Your task to perform on an android device: Search for vegetarian restaurants on Maps Image 0: 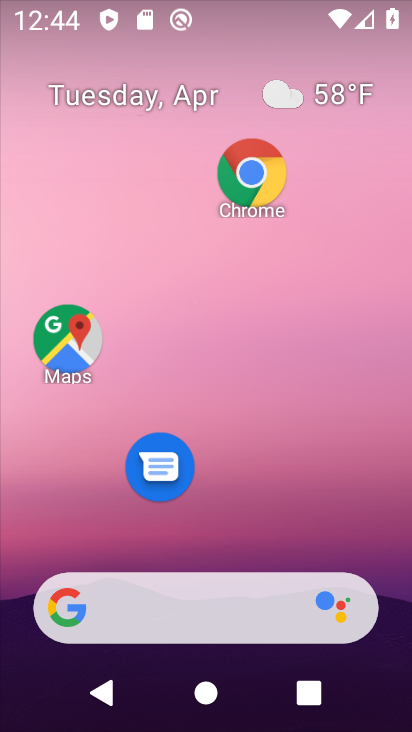
Step 0: click (358, 82)
Your task to perform on an android device: Search for vegetarian restaurants on Maps Image 1: 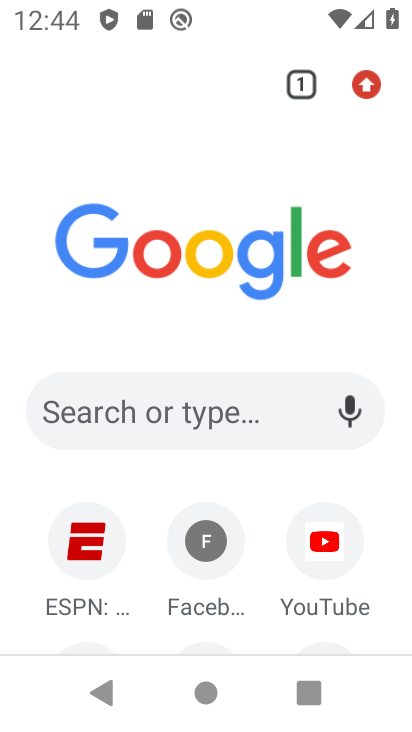
Step 1: press home button
Your task to perform on an android device: Search for vegetarian restaurants on Maps Image 2: 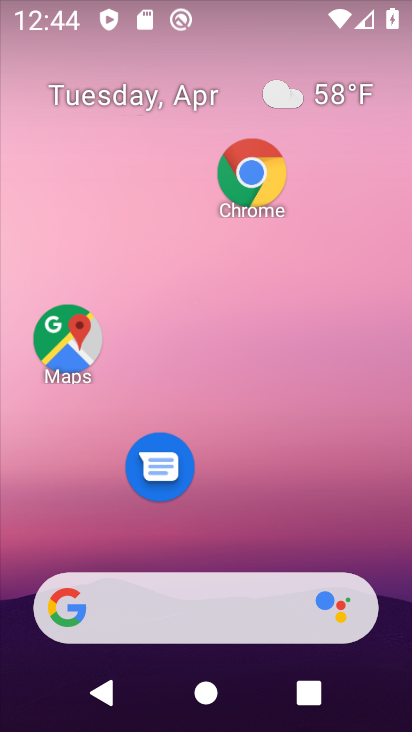
Step 2: drag from (303, 549) to (306, 139)
Your task to perform on an android device: Search for vegetarian restaurants on Maps Image 3: 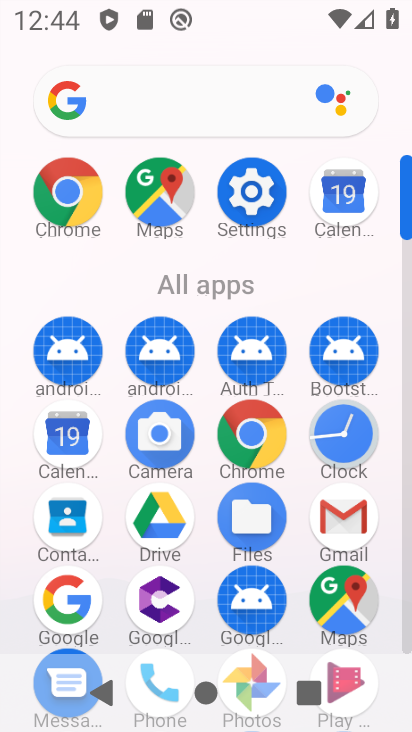
Step 3: click (333, 592)
Your task to perform on an android device: Search for vegetarian restaurants on Maps Image 4: 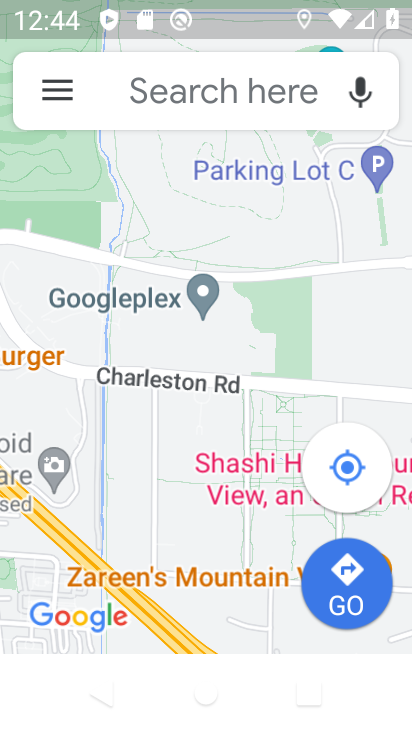
Step 4: click (214, 83)
Your task to perform on an android device: Search for vegetarian restaurants on Maps Image 5: 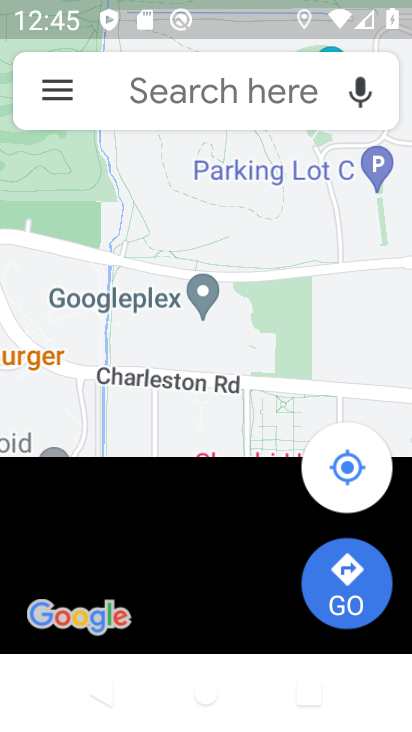
Step 5: click (214, 80)
Your task to perform on an android device: Search for vegetarian restaurants on Maps Image 6: 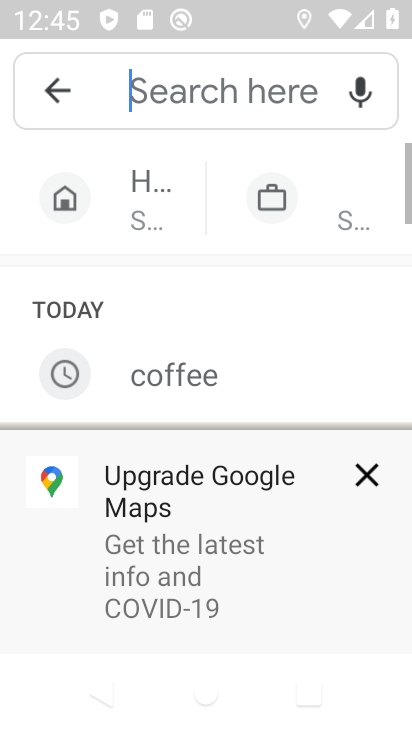
Step 6: click (139, 82)
Your task to perform on an android device: Search for vegetarian restaurants on Maps Image 7: 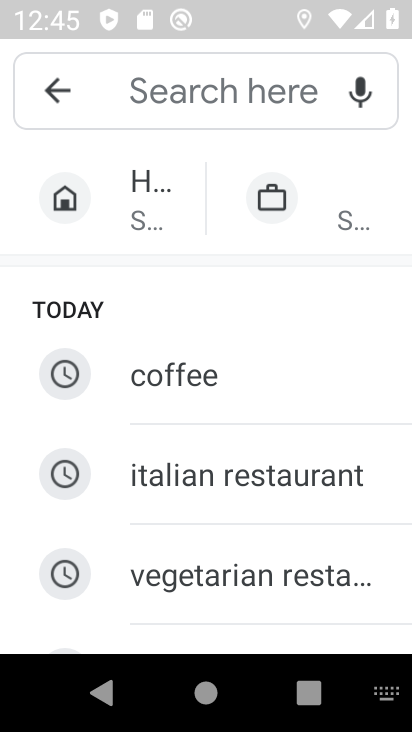
Step 7: type "vegetarian resaurant"
Your task to perform on an android device: Search for vegetarian restaurants on Maps Image 8: 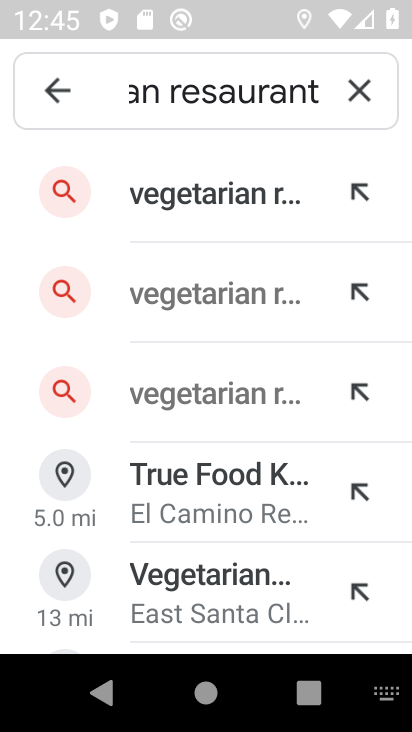
Step 8: click (199, 198)
Your task to perform on an android device: Search for vegetarian restaurants on Maps Image 9: 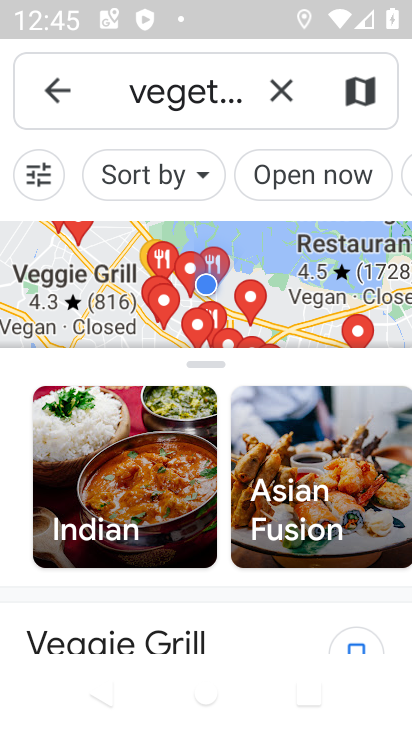
Step 9: task complete